Your task to perform on an android device: Search for pizza restaurants on Maps Image 0: 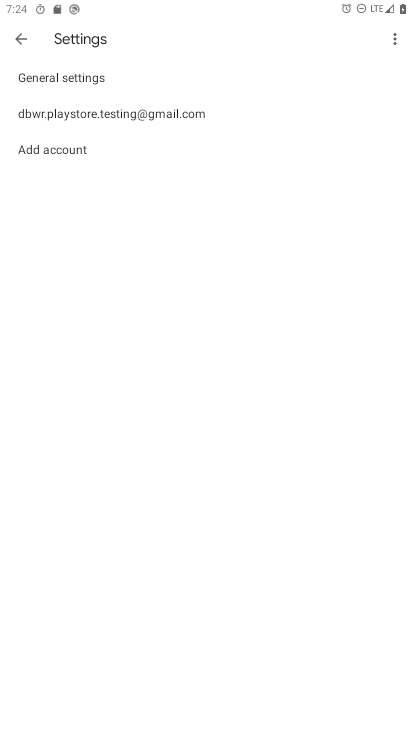
Step 0: press home button
Your task to perform on an android device: Search for pizza restaurants on Maps Image 1: 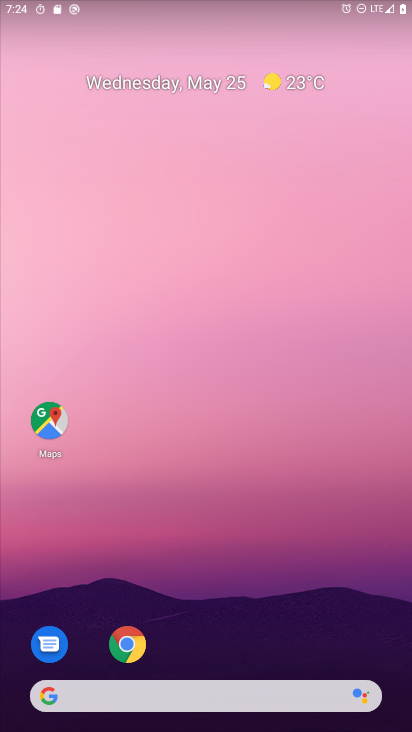
Step 1: drag from (321, 620) to (232, 98)
Your task to perform on an android device: Search for pizza restaurants on Maps Image 2: 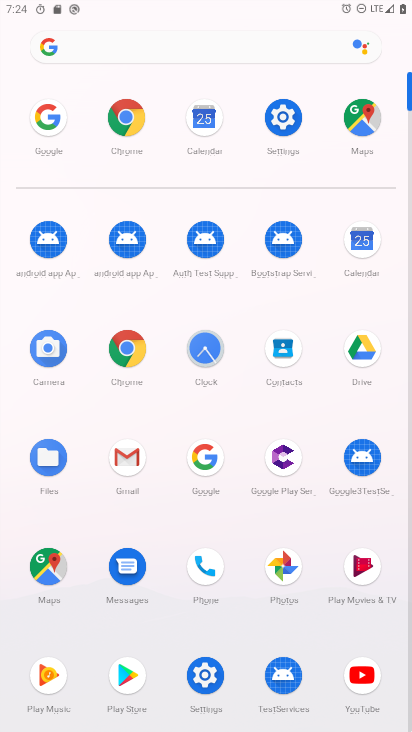
Step 2: click (53, 563)
Your task to perform on an android device: Search for pizza restaurants on Maps Image 3: 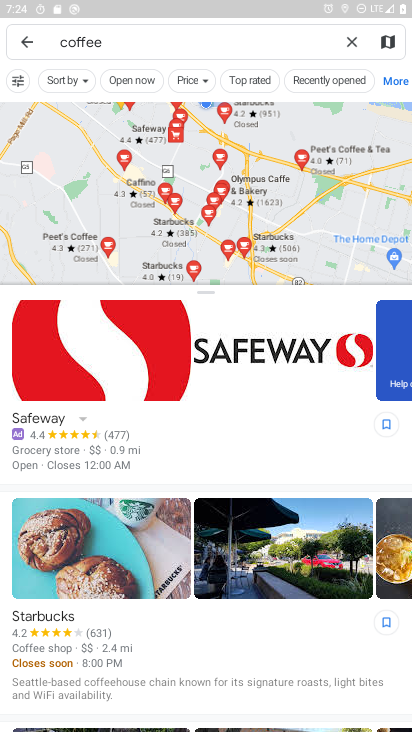
Step 3: click (345, 45)
Your task to perform on an android device: Search for pizza restaurants on Maps Image 4: 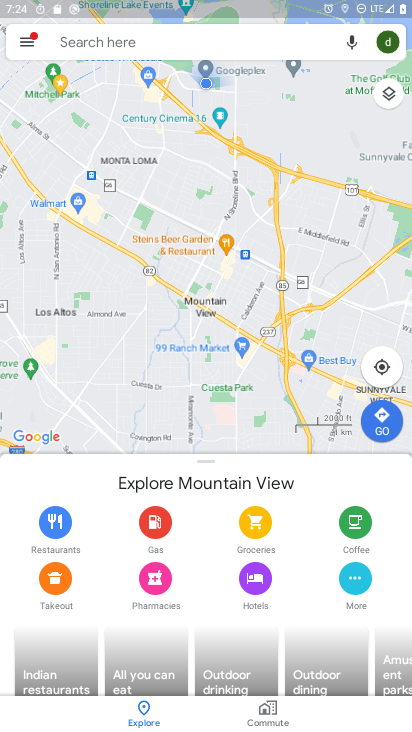
Step 4: click (181, 46)
Your task to perform on an android device: Search for pizza restaurants on Maps Image 5: 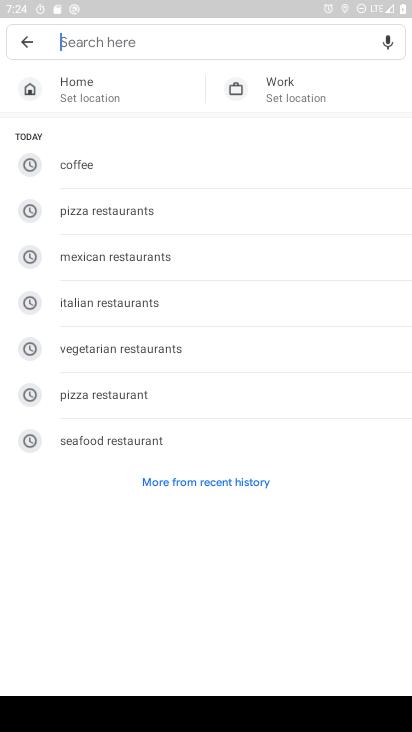
Step 5: click (156, 223)
Your task to perform on an android device: Search for pizza restaurants on Maps Image 6: 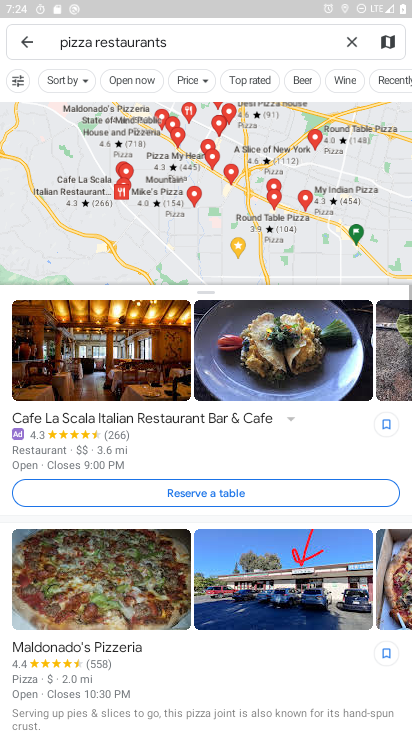
Step 6: task complete